Your task to perform on an android device: Open network settings Image 0: 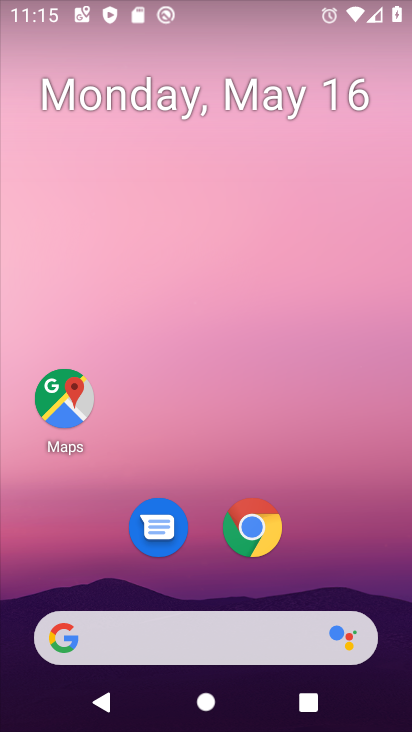
Step 0: drag from (355, 593) to (294, 3)
Your task to perform on an android device: Open network settings Image 1: 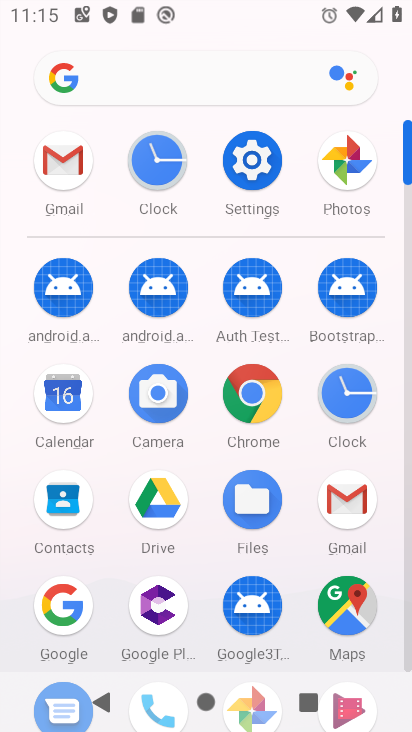
Step 1: click (256, 162)
Your task to perform on an android device: Open network settings Image 2: 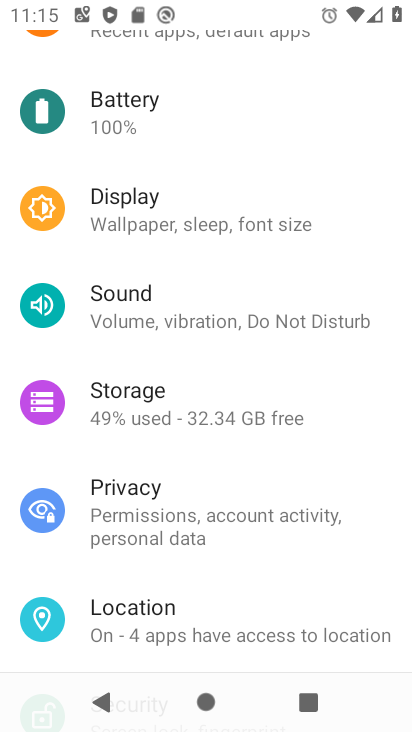
Step 2: drag from (256, 162) to (246, 511)
Your task to perform on an android device: Open network settings Image 3: 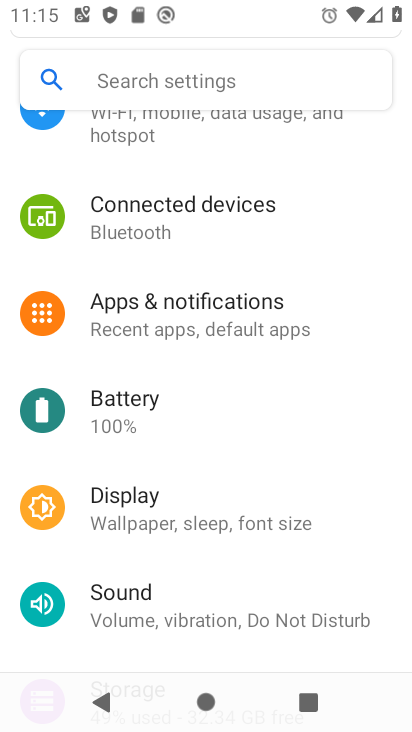
Step 3: drag from (302, 235) to (291, 474)
Your task to perform on an android device: Open network settings Image 4: 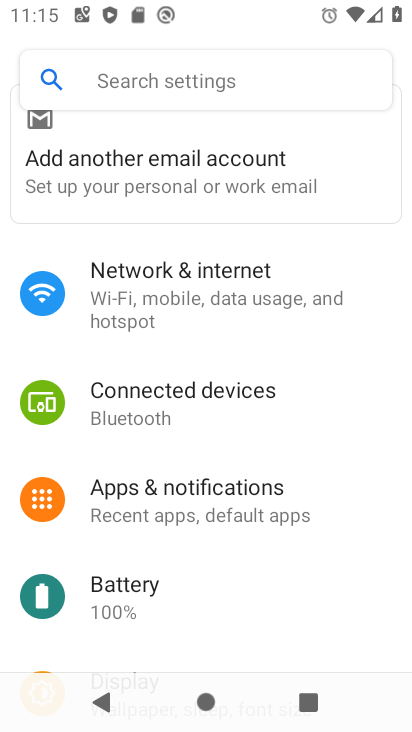
Step 4: click (152, 289)
Your task to perform on an android device: Open network settings Image 5: 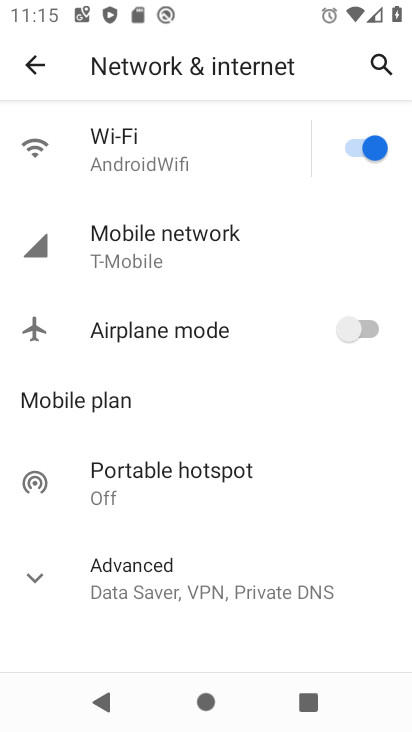
Step 5: click (143, 257)
Your task to perform on an android device: Open network settings Image 6: 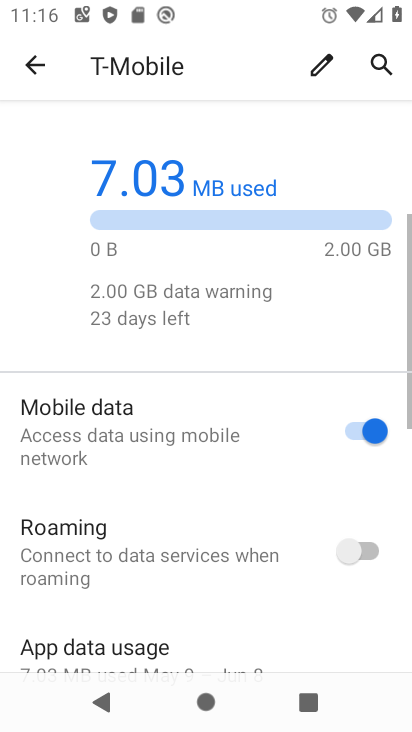
Step 6: drag from (199, 513) to (156, 22)
Your task to perform on an android device: Open network settings Image 7: 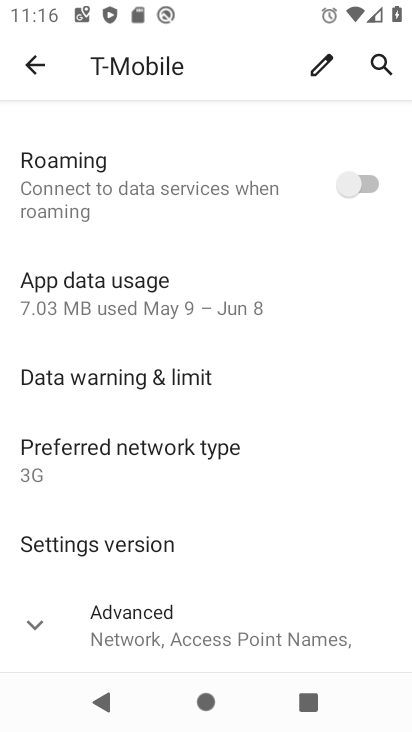
Step 7: click (29, 631)
Your task to perform on an android device: Open network settings Image 8: 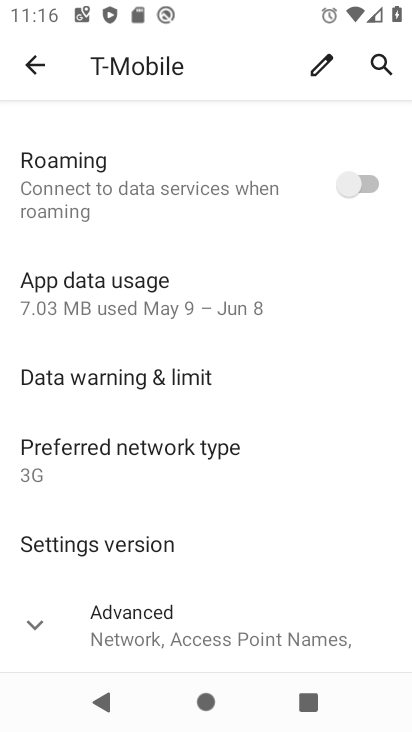
Step 8: drag from (161, 610) to (158, 448)
Your task to perform on an android device: Open network settings Image 9: 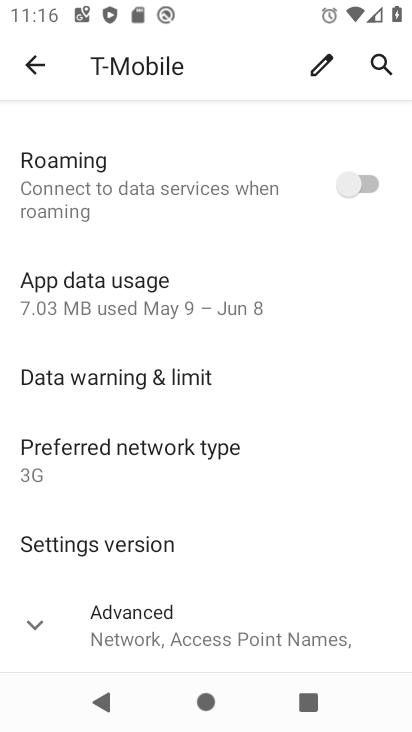
Step 9: click (36, 633)
Your task to perform on an android device: Open network settings Image 10: 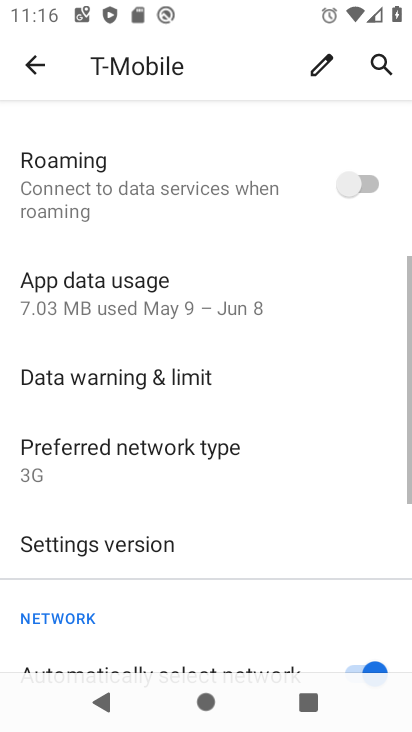
Step 10: task complete